Your task to perform on an android device: Open Google Chrome and open the bookmarks view Image 0: 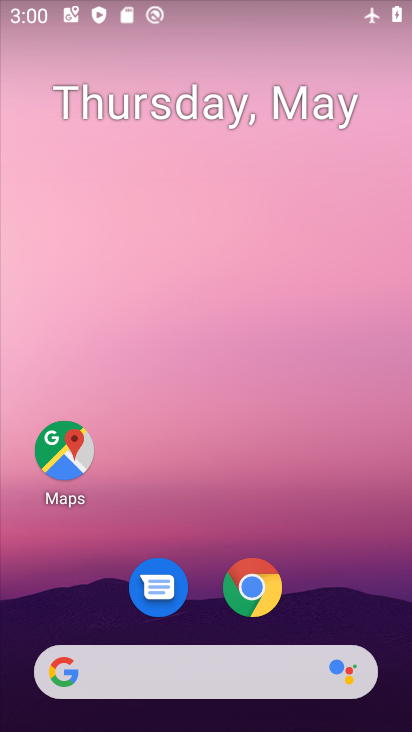
Step 0: click (262, 576)
Your task to perform on an android device: Open Google Chrome and open the bookmarks view Image 1: 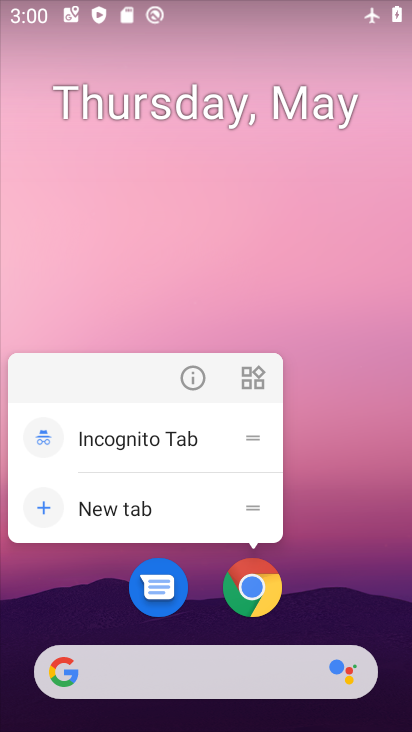
Step 1: click (272, 587)
Your task to perform on an android device: Open Google Chrome and open the bookmarks view Image 2: 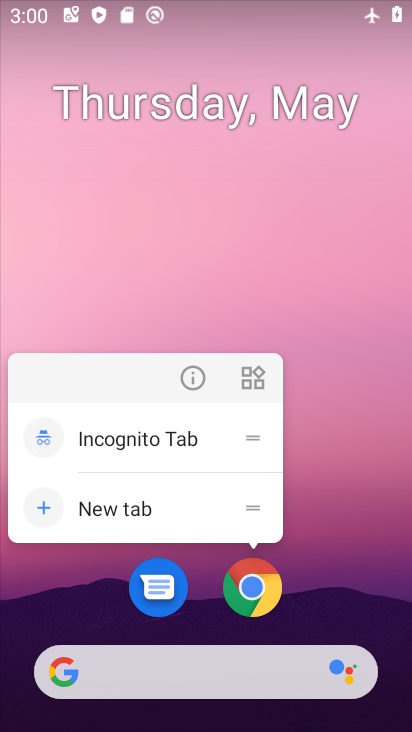
Step 2: click (271, 587)
Your task to perform on an android device: Open Google Chrome and open the bookmarks view Image 3: 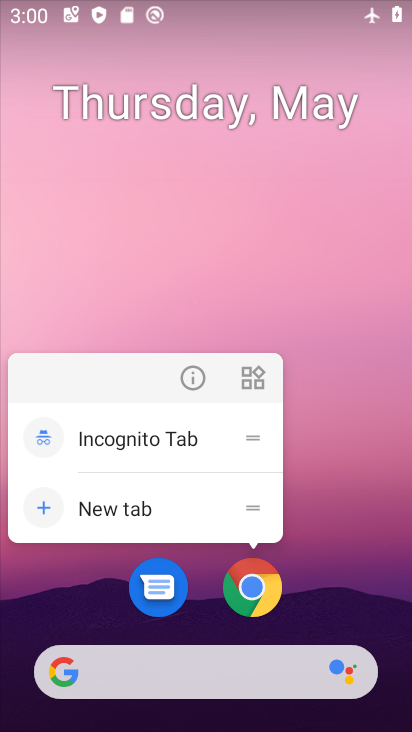
Step 3: click (278, 597)
Your task to perform on an android device: Open Google Chrome and open the bookmarks view Image 4: 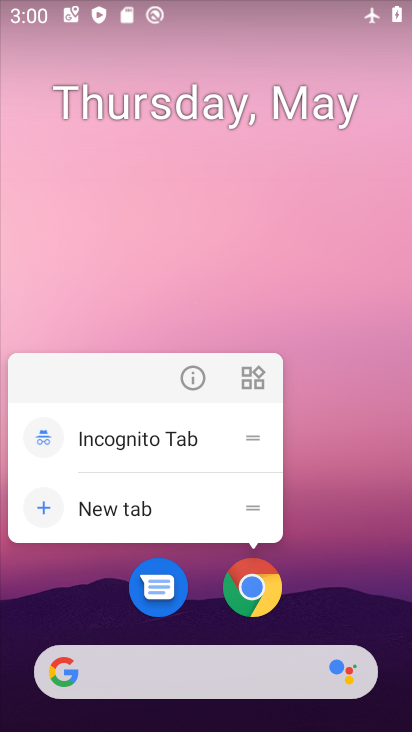
Step 4: click (278, 597)
Your task to perform on an android device: Open Google Chrome and open the bookmarks view Image 5: 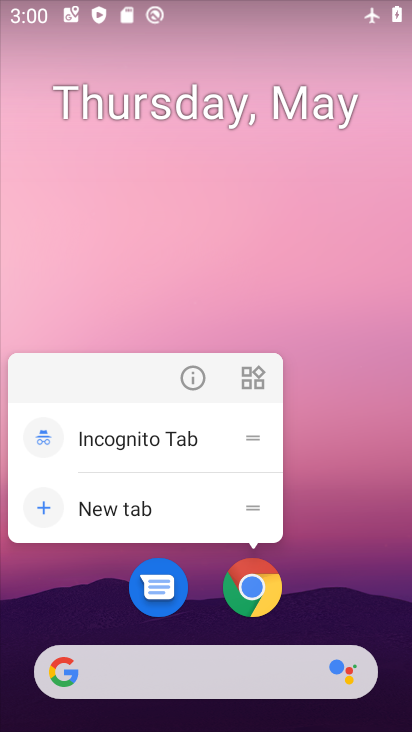
Step 5: click (272, 598)
Your task to perform on an android device: Open Google Chrome and open the bookmarks view Image 6: 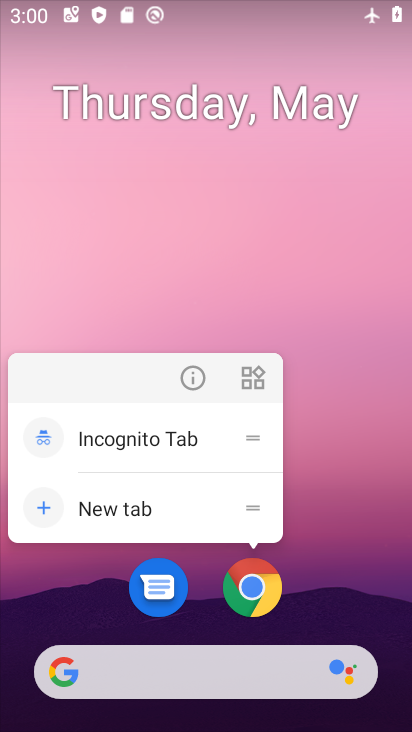
Step 6: click (252, 608)
Your task to perform on an android device: Open Google Chrome and open the bookmarks view Image 7: 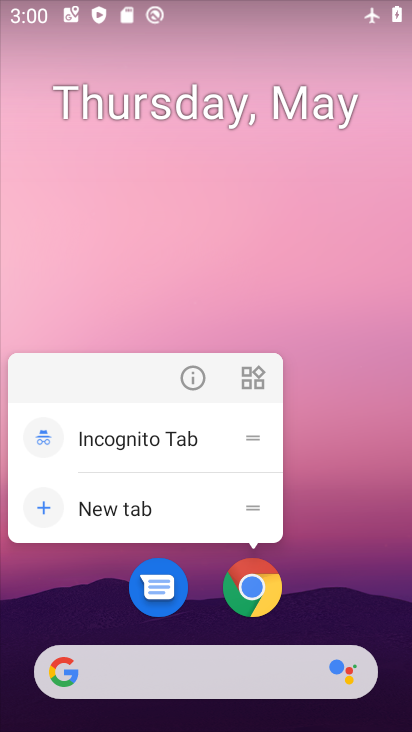
Step 7: click (245, 592)
Your task to perform on an android device: Open Google Chrome and open the bookmarks view Image 8: 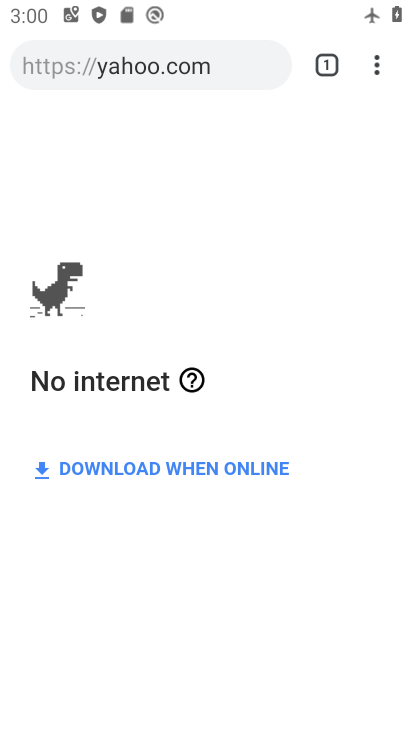
Step 8: click (378, 71)
Your task to perform on an android device: Open Google Chrome and open the bookmarks view Image 9: 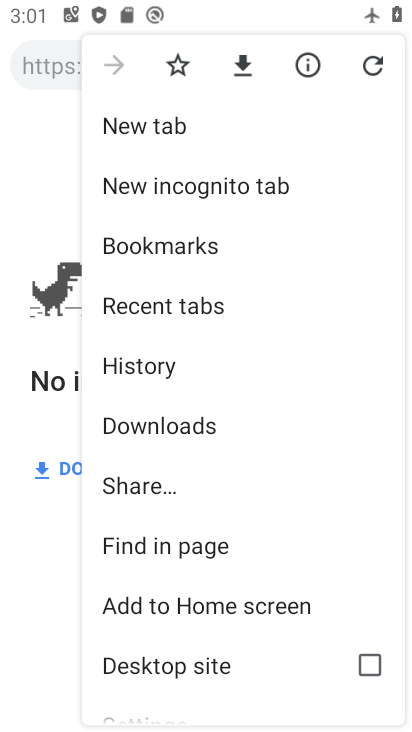
Step 9: click (227, 236)
Your task to perform on an android device: Open Google Chrome and open the bookmarks view Image 10: 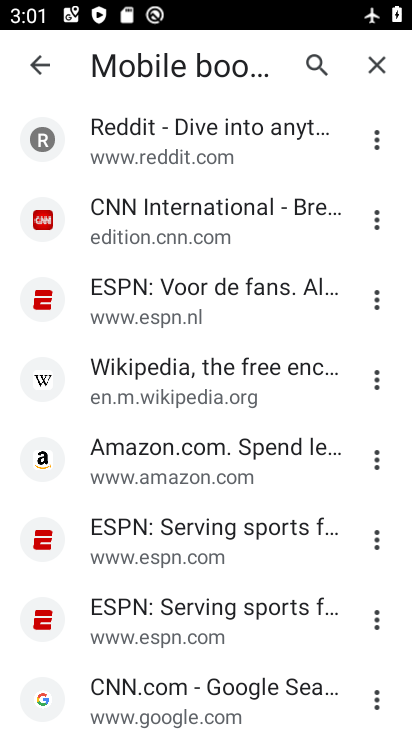
Step 10: task complete